Your task to perform on an android device: set the stopwatch Image 0: 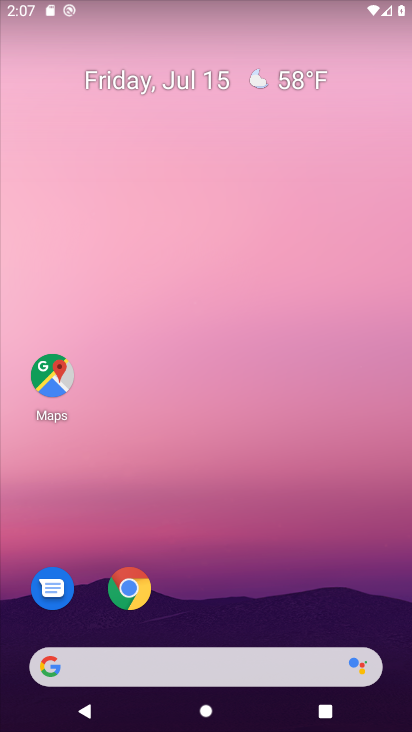
Step 0: drag from (320, 559) to (320, 100)
Your task to perform on an android device: set the stopwatch Image 1: 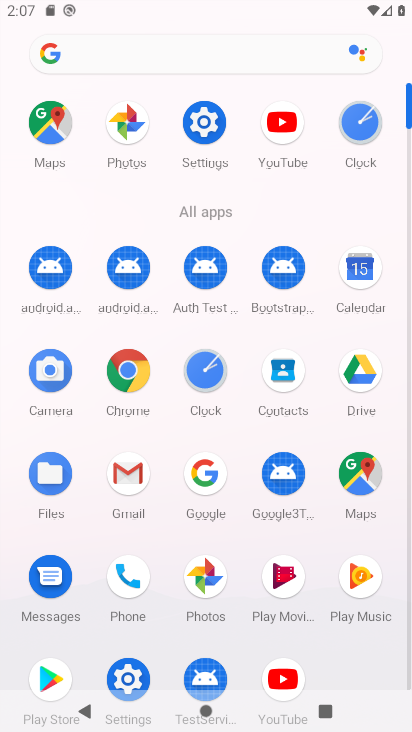
Step 1: click (358, 126)
Your task to perform on an android device: set the stopwatch Image 2: 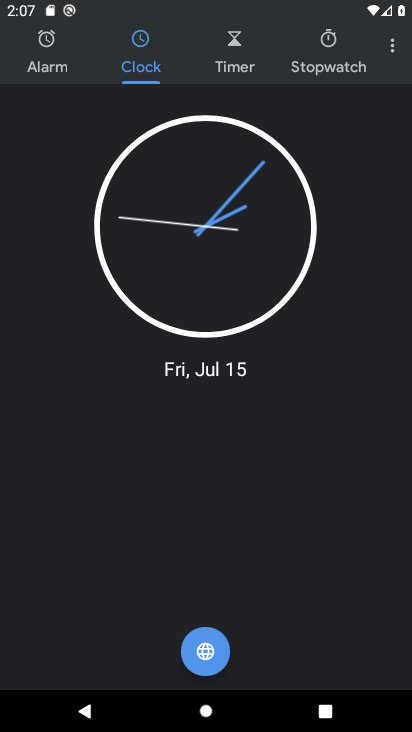
Step 2: click (302, 70)
Your task to perform on an android device: set the stopwatch Image 3: 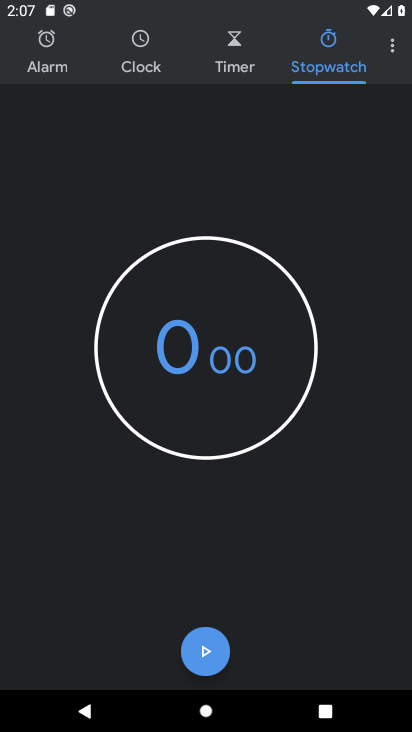
Step 3: click (197, 647)
Your task to perform on an android device: set the stopwatch Image 4: 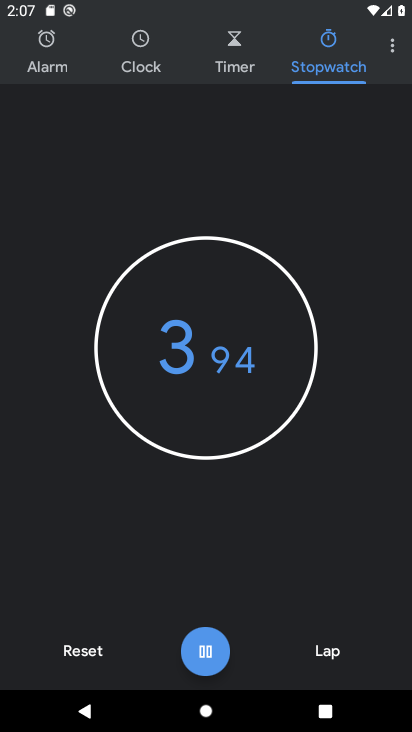
Step 4: task complete